Your task to perform on an android device: Open Yahoo.com Image 0: 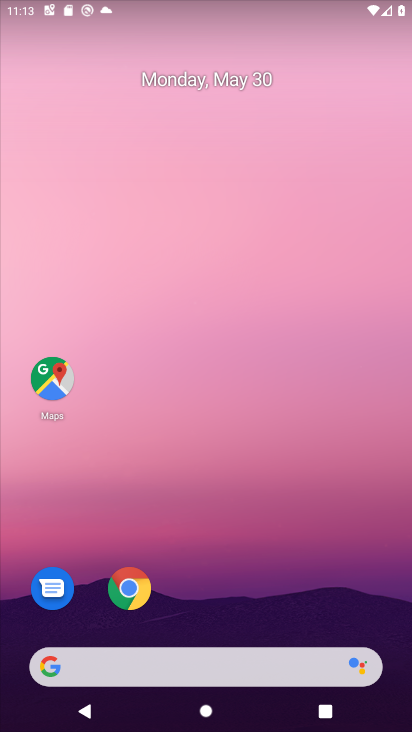
Step 0: drag from (184, 669) to (211, 108)
Your task to perform on an android device: Open Yahoo.com Image 1: 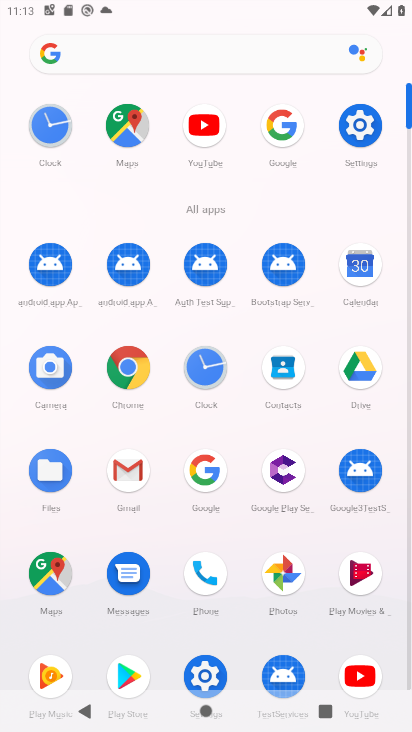
Step 1: click (137, 372)
Your task to perform on an android device: Open Yahoo.com Image 2: 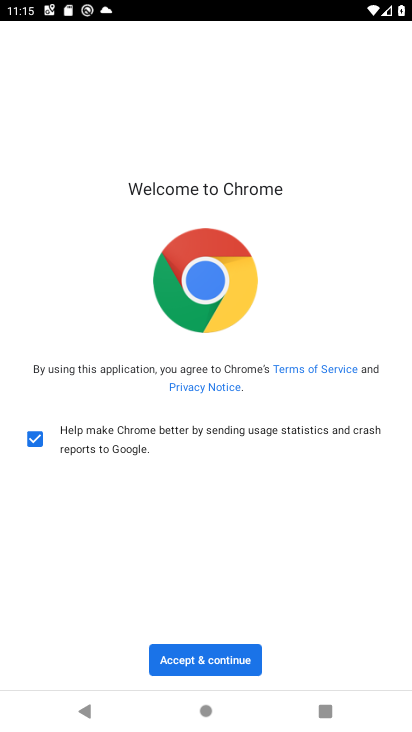
Step 2: click (212, 665)
Your task to perform on an android device: Open Yahoo.com Image 3: 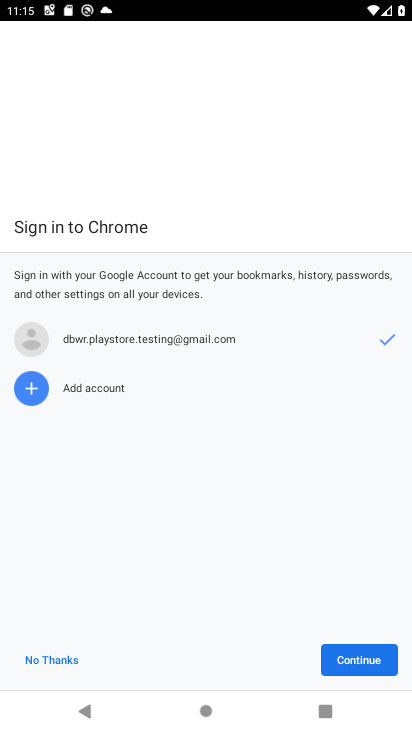
Step 3: click (45, 664)
Your task to perform on an android device: Open Yahoo.com Image 4: 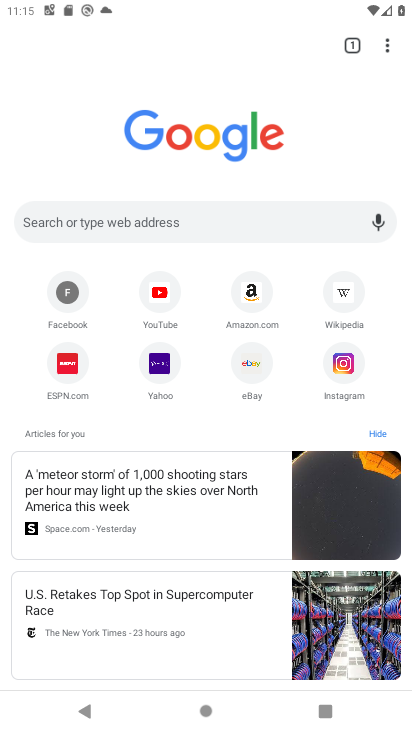
Step 4: click (176, 368)
Your task to perform on an android device: Open Yahoo.com Image 5: 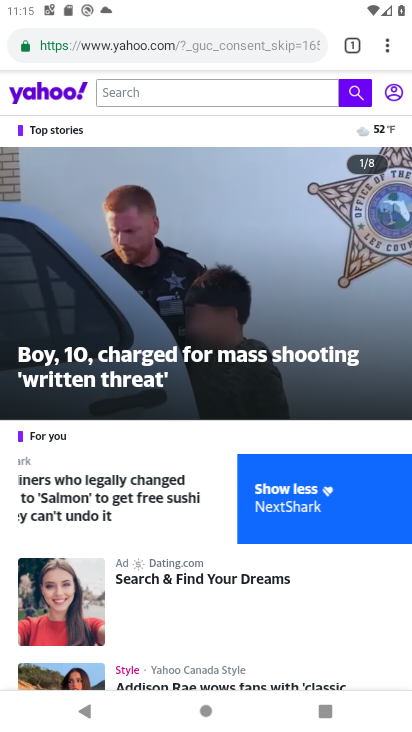
Step 5: task complete